Your task to perform on an android device: turn on location history Image 0: 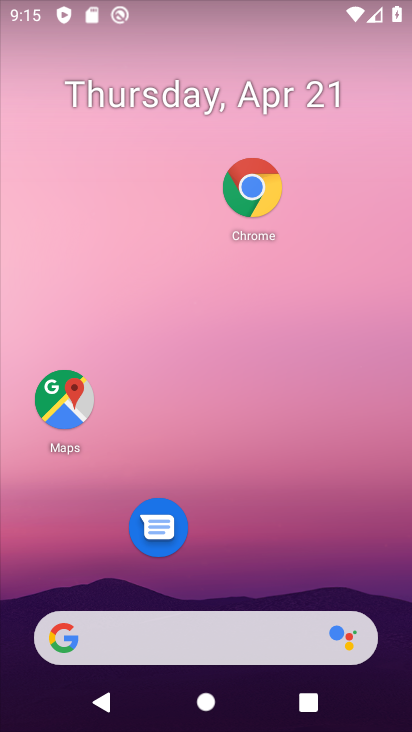
Step 0: drag from (210, 657) to (245, 166)
Your task to perform on an android device: turn on location history Image 1: 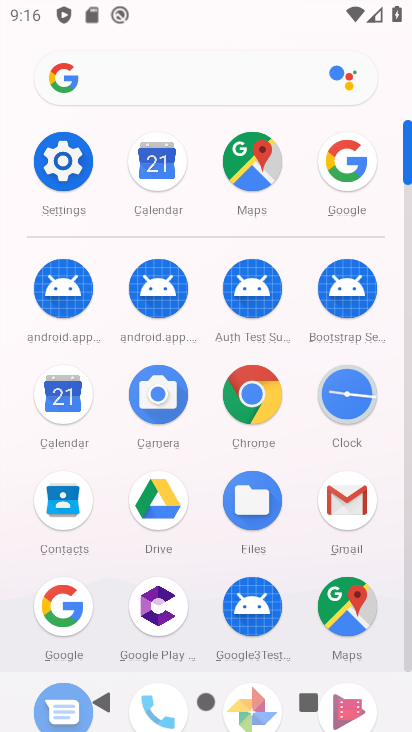
Step 1: click (76, 171)
Your task to perform on an android device: turn on location history Image 2: 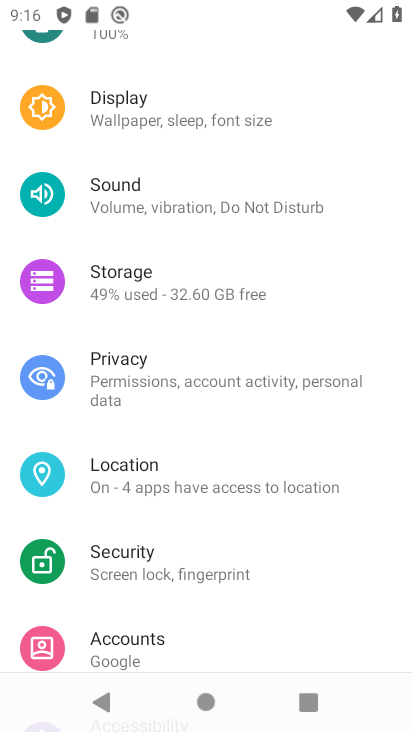
Step 2: click (163, 467)
Your task to perform on an android device: turn on location history Image 3: 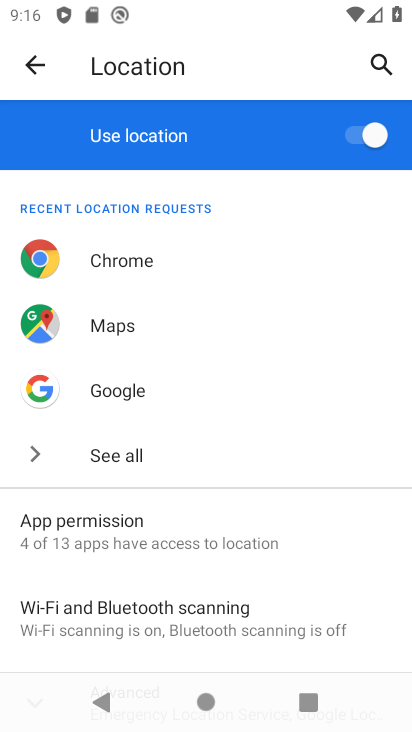
Step 3: drag from (166, 434) to (217, 169)
Your task to perform on an android device: turn on location history Image 4: 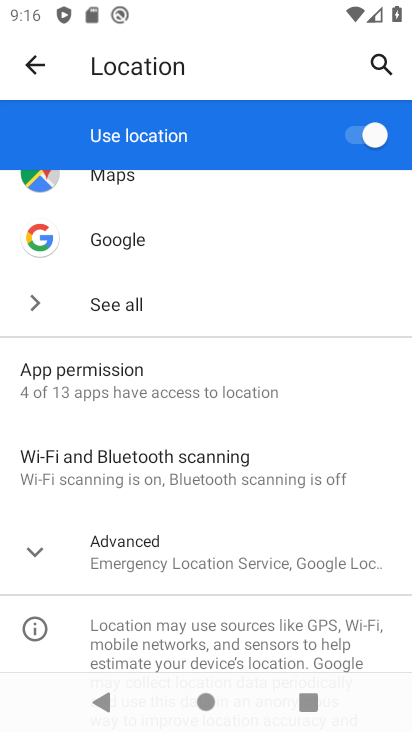
Step 4: click (194, 564)
Your task to perform on an android device: turn on location history Image 5: 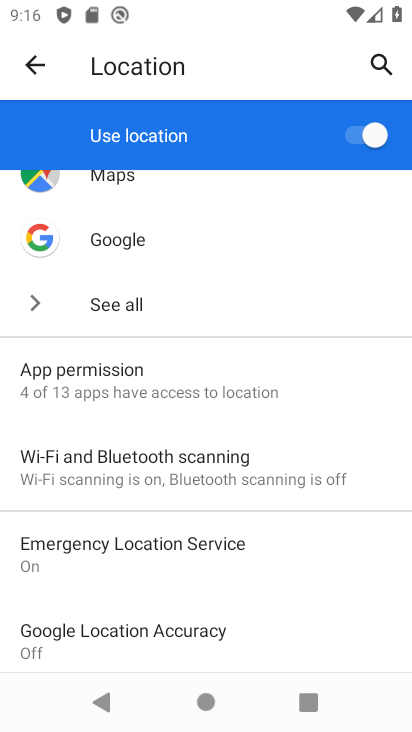
Step 5: drag from (196, 557) to (230, 343)
Your task to perform on an android device: turn on location history Image 6: 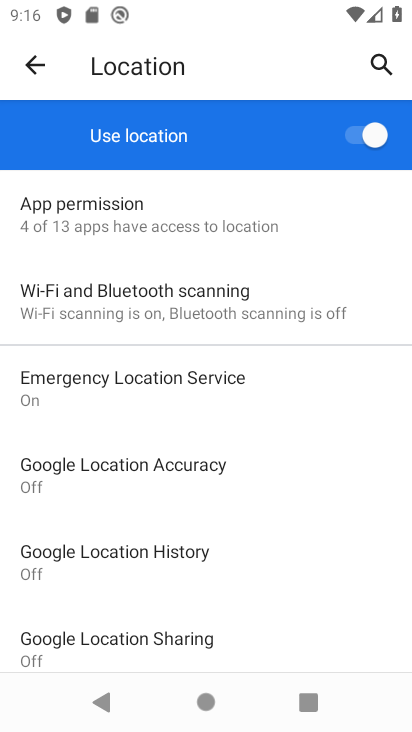
Step 6: click (239, 575)
Your task to perform on an android device: turn on location history Image 7: 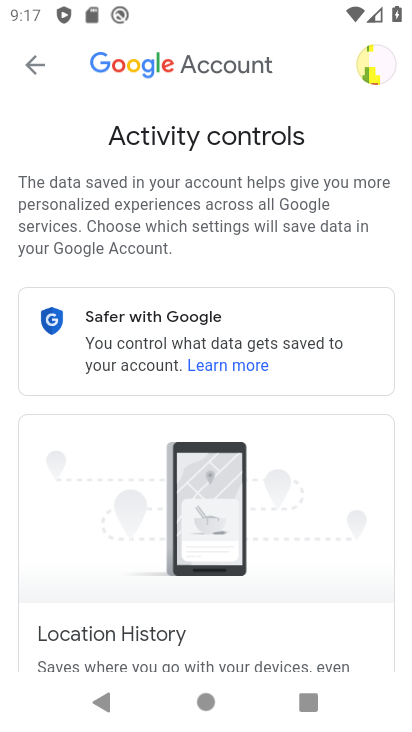
Step 7: drag from (298, 527) to (348, 26)
Your task to perform on an android device: turn on location history Image 8: 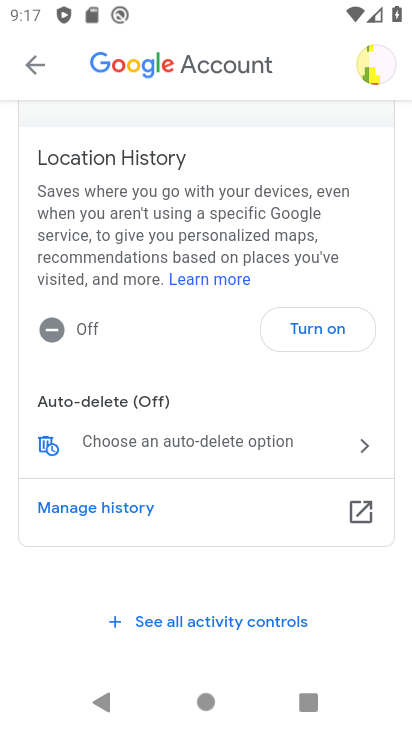
Step 8: click (241, 1)
Your task to perform on an android device: turn on location history Image 9: 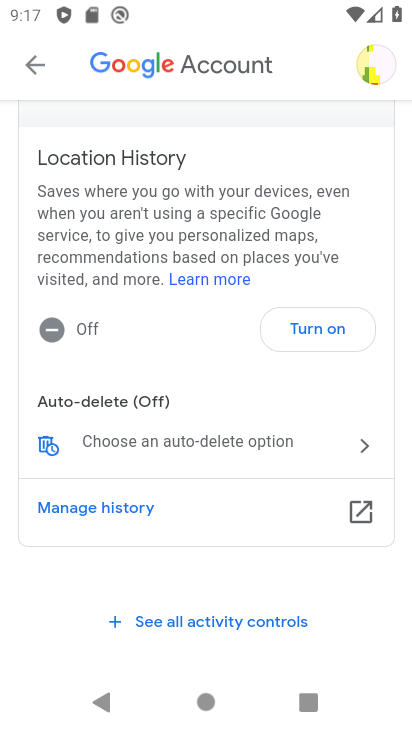
Step 9: drag from (224, 524) to (239, 202)
Your task to perform on an android device: turn on location history Image 10: 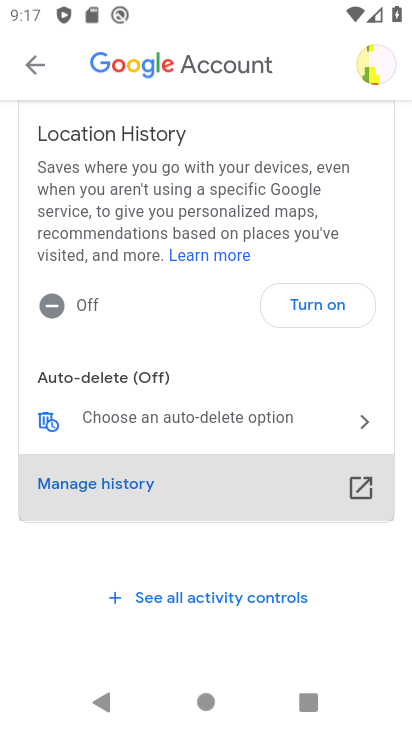
Step 10: click (304, 295)
Your task to perform on an android device: turn on location history Image 11: 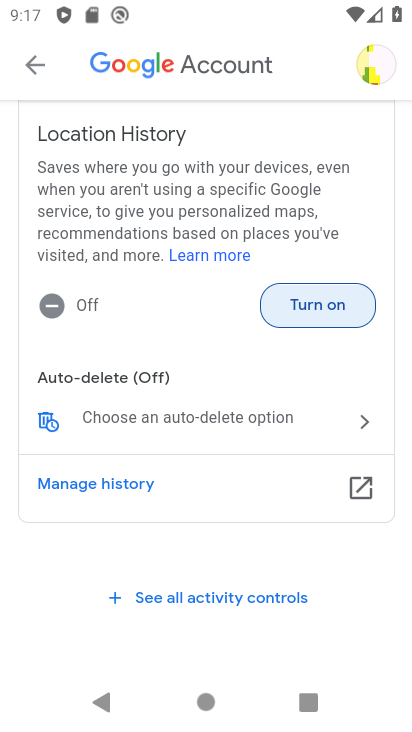
Step 11: click (337, 312)
Your task to perform on an android device: turn on location history Image 12: 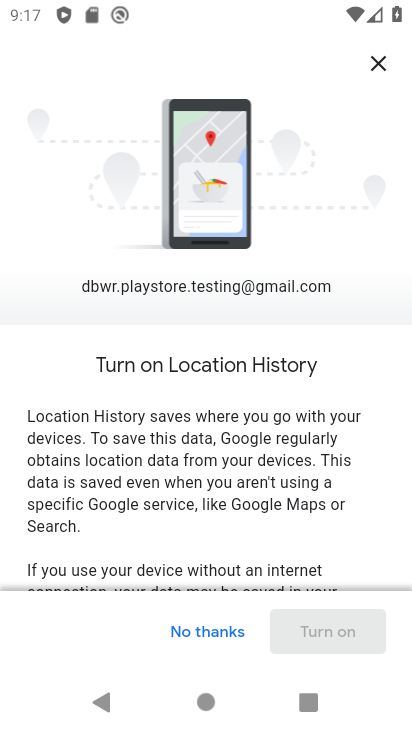
Step 12: drag from (303, 447) to (411, 5)
Your task to perform on an android device: turn on location history Image 13: 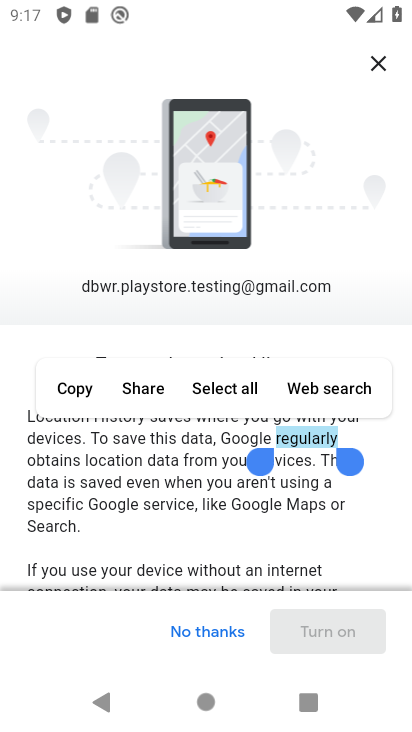
Step 13: drag from (317, 490) to (333, 125)
Your task to perform on an android device: turn on location history Image 14: 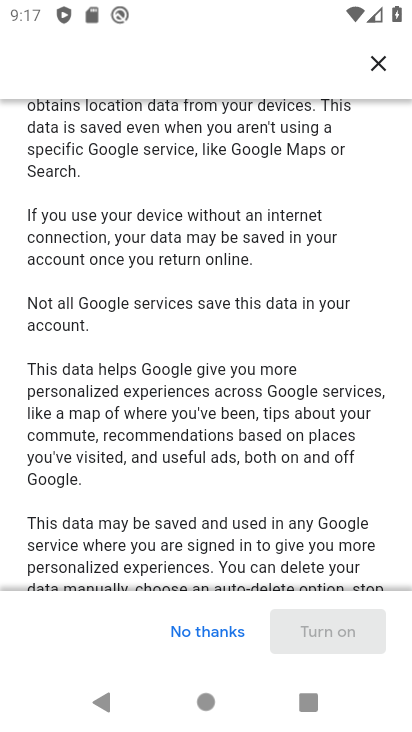
Step 14: drag from (329, 485) to (357, 102)
Your task to perform on an android device: turn on location history Image 15: 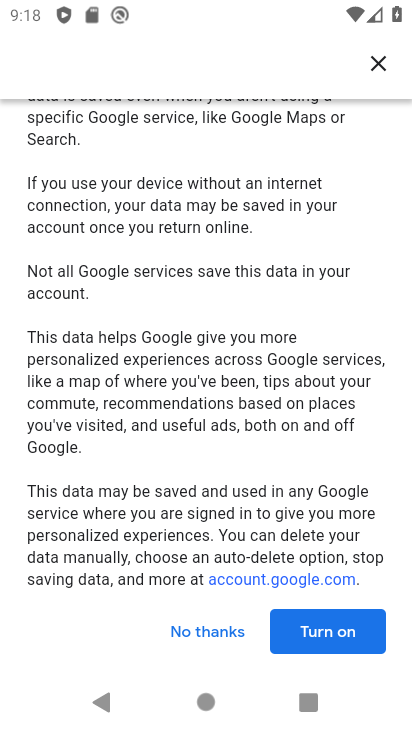
Step 15: click (336, 655)
Your task to perform on an android device: turn on location history Image 16: 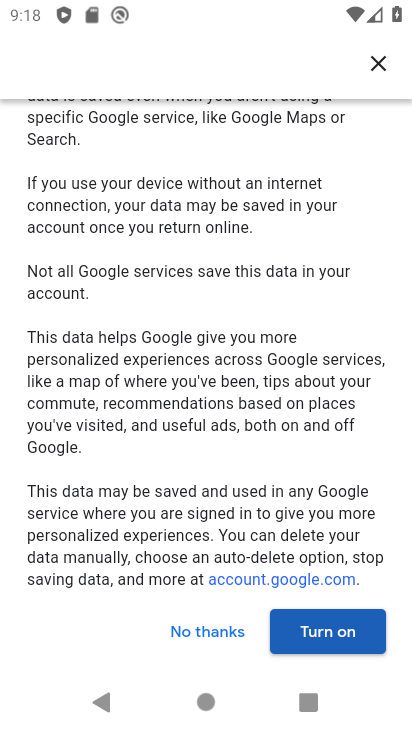
Step 16: click (333, 647)
Your task to perform on an android device: turn on location history Image 17: 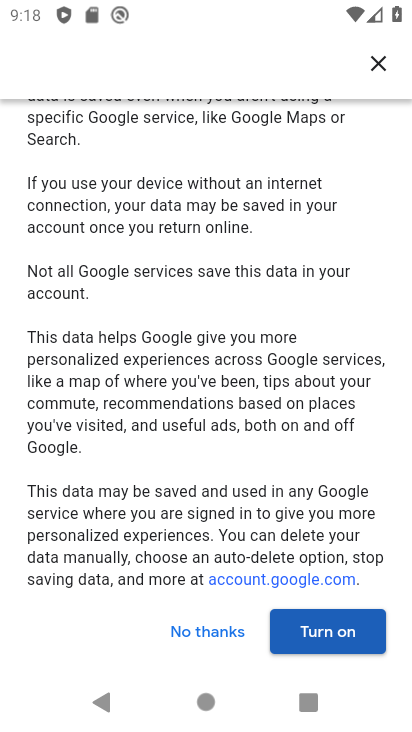
Step 17: click (349, 638)
Your task to perform on an android device: turn on location history Image 18: 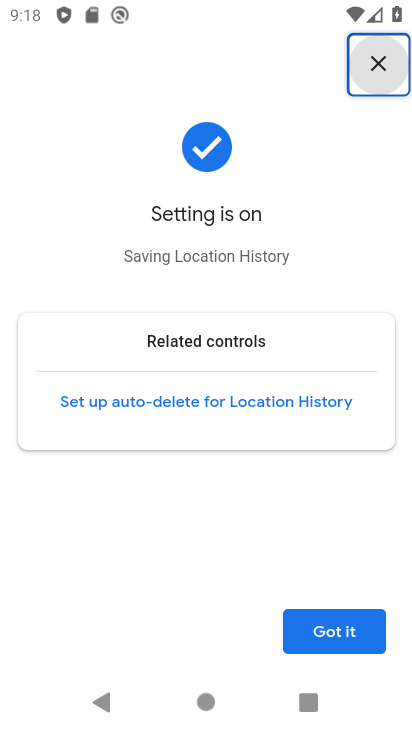
Step 18: click (351, 648)
Your task to perform on an android device: turn on location history Image 19: 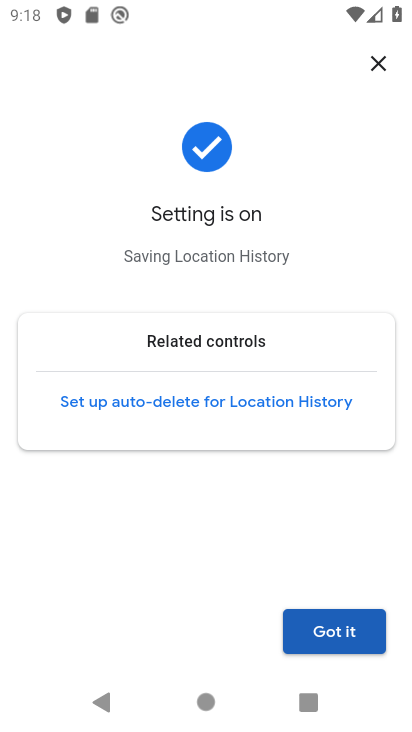
Step 19: click (352, 643)
Your task to perform on an android device: turn on location history Image 20: 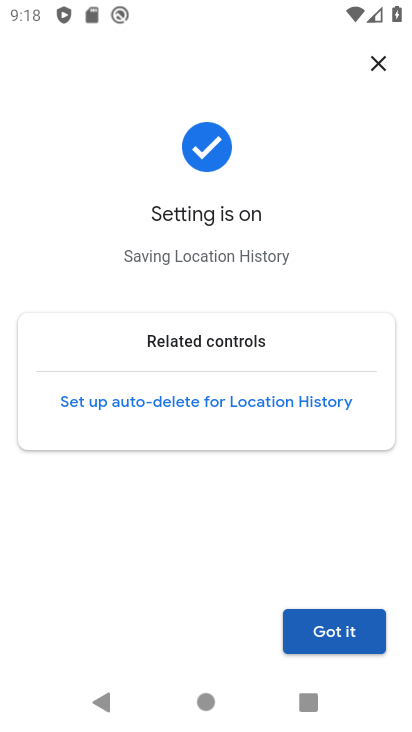
Step 20: click (352, 644)
Your task to perform on an android device: turn on location history Image 21: 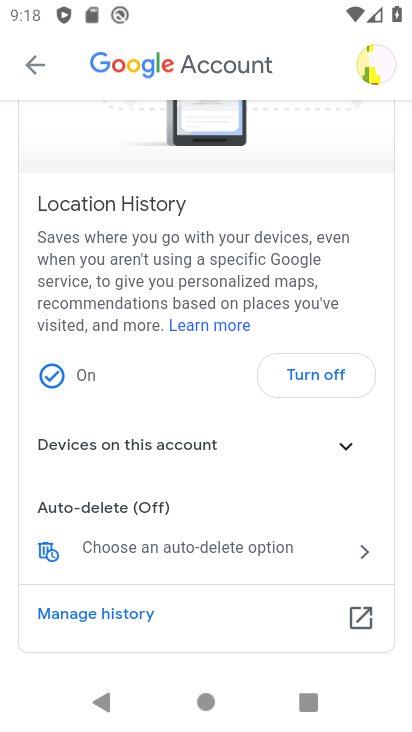
Step 21: task complete